Your task to perform on an android device: Do I have any events tomorrow? Image 0: 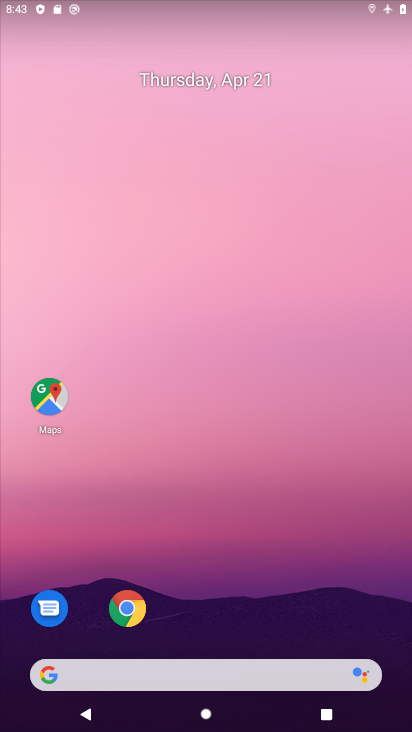
Step 0: click (236, 596)
Your task to perform on an android device: Do I have any events tomorrow? Image 1: 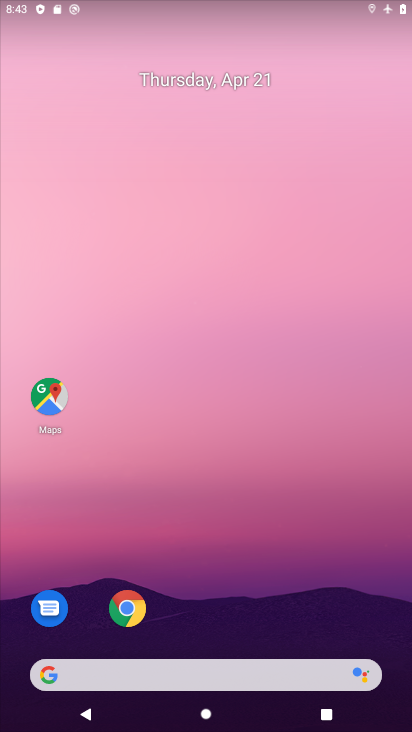
Step 1: drag from (236, 596) to (264, 7)
Your task to perform on an android device: Do I have any events tomorrow? Image 2: 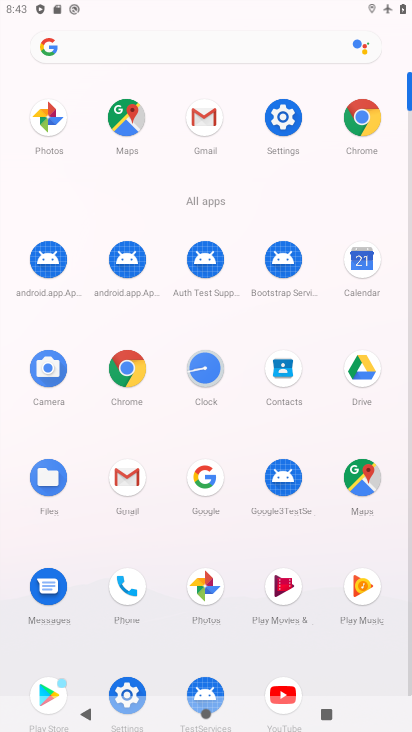
Step 2: click (353, 263)
Your task to perform on an android device: Do I have any events tomorrow? Image 3: 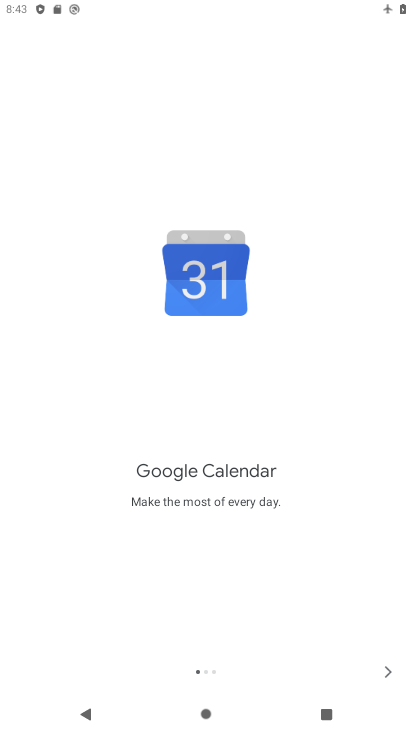
Step 3: click (388, 676)
Your task to perform on an android device: Do I have any events tomorrow? Image 4: 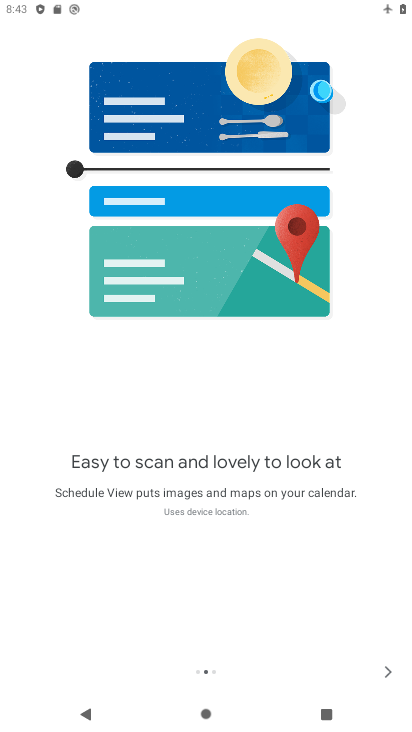
Step 4: click (388, 676)
Your task to perform on an android device: Do I have any events tomorrow? Image 5: 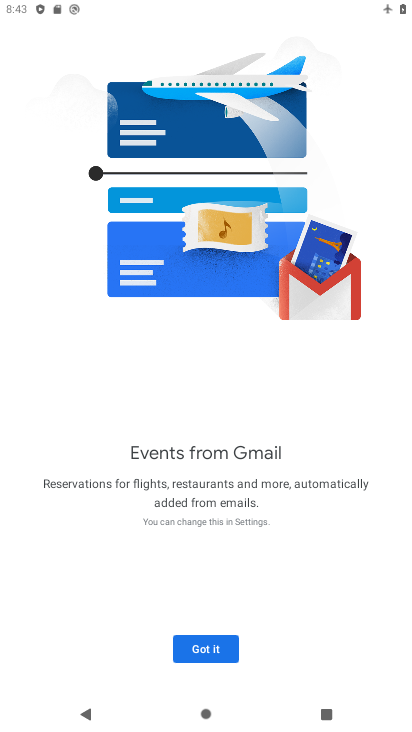
Step 5: click (211, 649)
Your task to perform on an android device: Do I have any events tomorrow? Image 6: 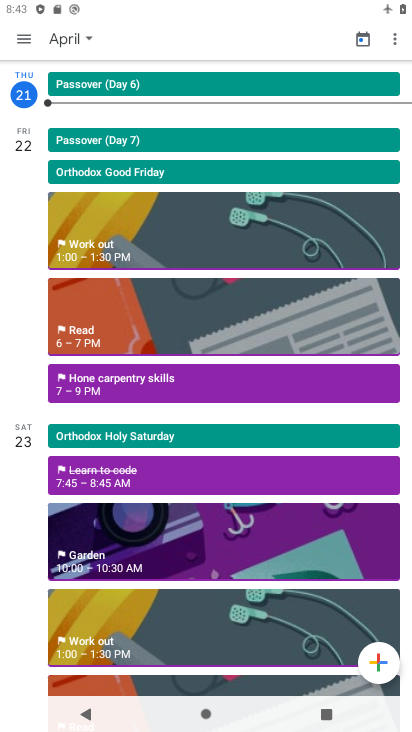
Step 6: click (85, 144)
Your task to perform on an android device: Do I have any events tomorrow? Image 7: 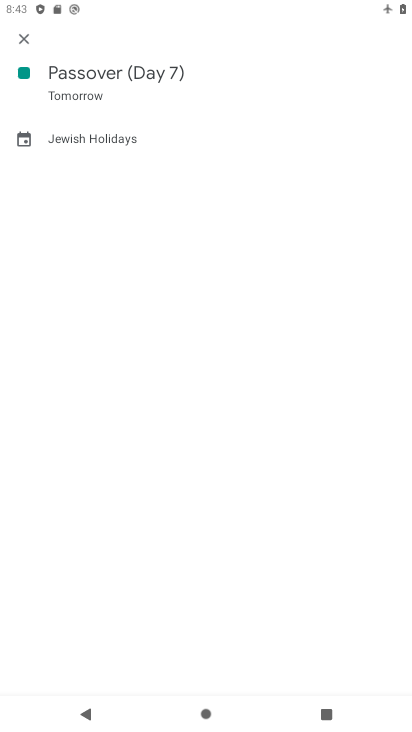
Step 7: click (23, 29)
Your task to perform on an android device: Do I have any events tomorrow? Image 8: 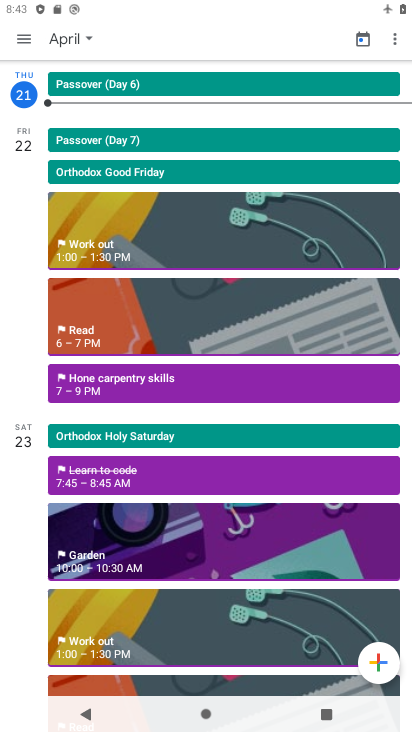
Step 8: click (87, 36)
Your task to perform on an android device: Do I have any events tomorrow? Image 9: 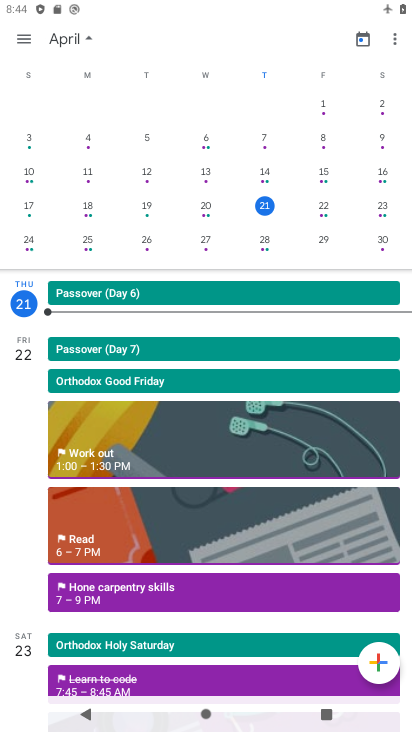
Step 9: click (323, 210)
Your task to perform on an android device: Do I have any events tomorrow? Image 10: 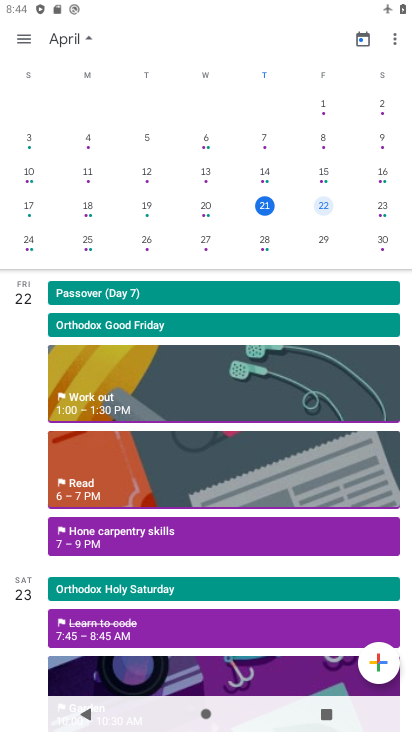
Step 10: task complete